Your task to perform on an android device: When is my next meeting? Image 0: 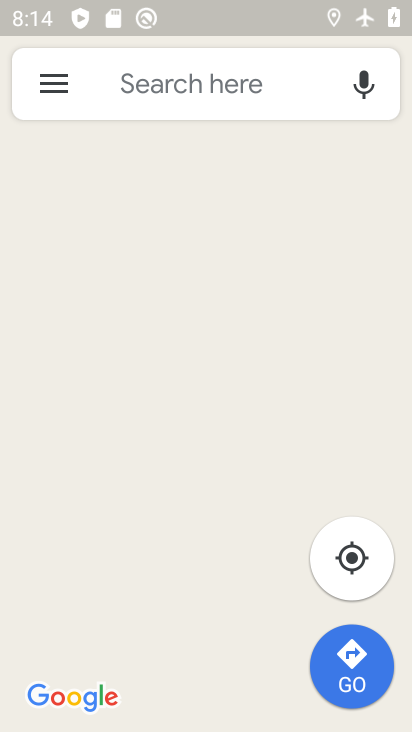
Step 0: press home button
Your task to perform on an android device: When is my next meeting? Image 1: 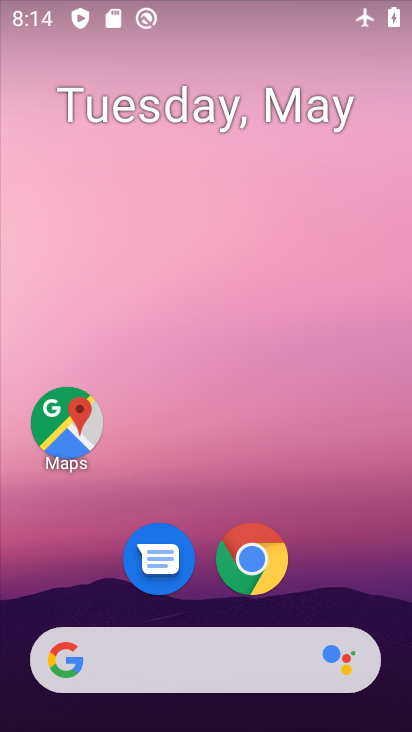
Step 1: drag from (208, 592) to (214, 170)
Your task to perform on an android device: When is my next meeting? Image 2: 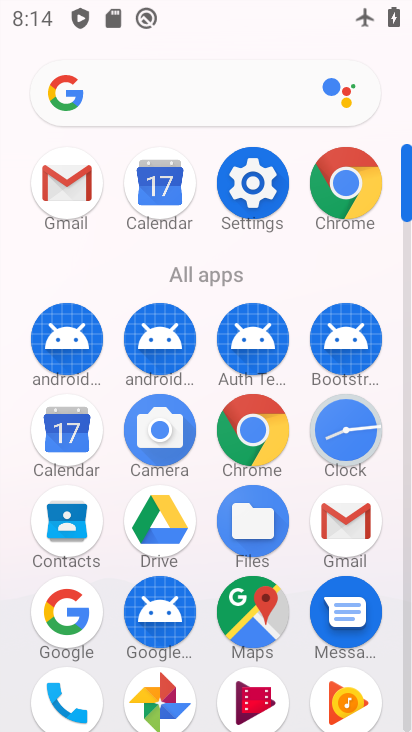
Step 2: click (79, 428)
Your task to perform on an android device: When is my next meeting? Image 3: 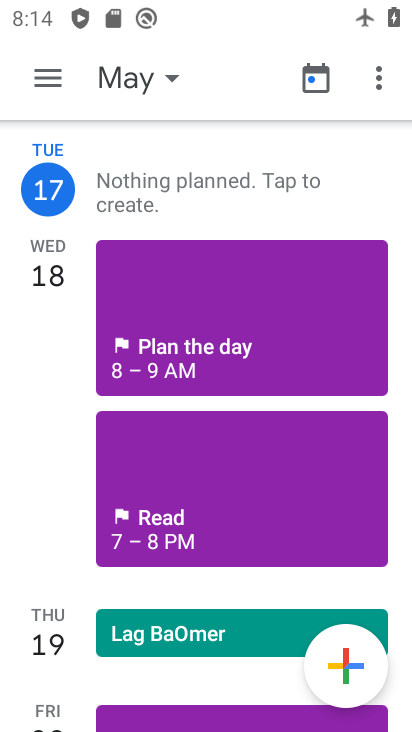
Step 3: task complete